Your task to perform on an android device: What's the weather today? Image 0: 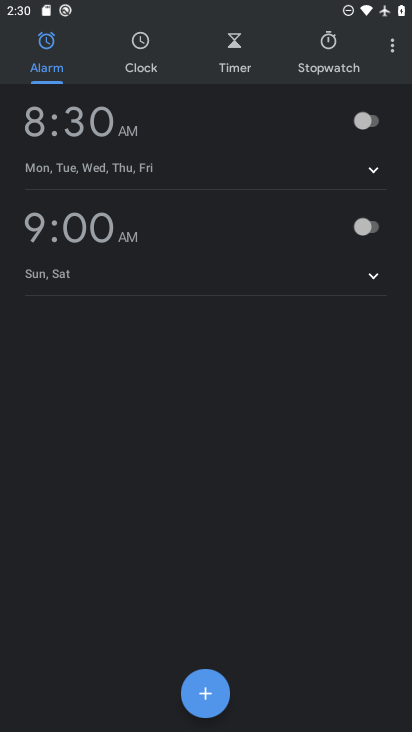
Step 0: press home button
Your task to perform on an android device: What's the weather today? Image 1: 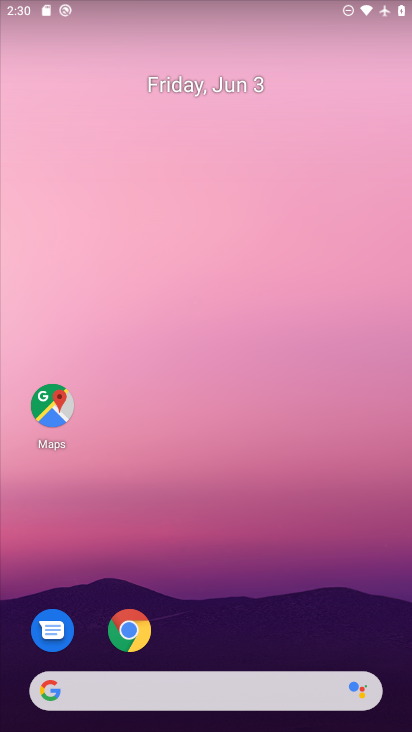
Step 1: drag from (253, 704) to (268, 112)
Your task to perform on an android device: What's the weather today? Image 2: 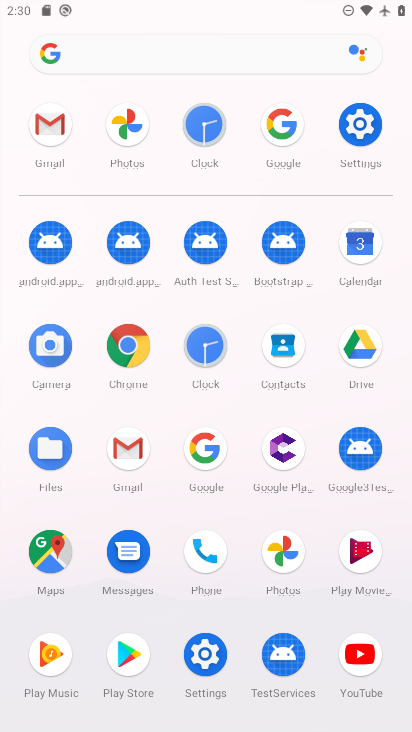
Step 2: click (217, 452)
Your task to perform on an android device: What's the weather today? Image 3: 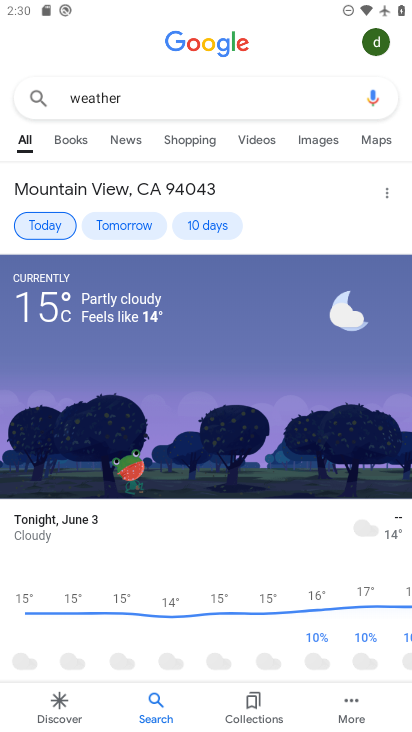
Step 3: click (40, 218)
Your task to perform on an android device: What's the weather today? Image 4: 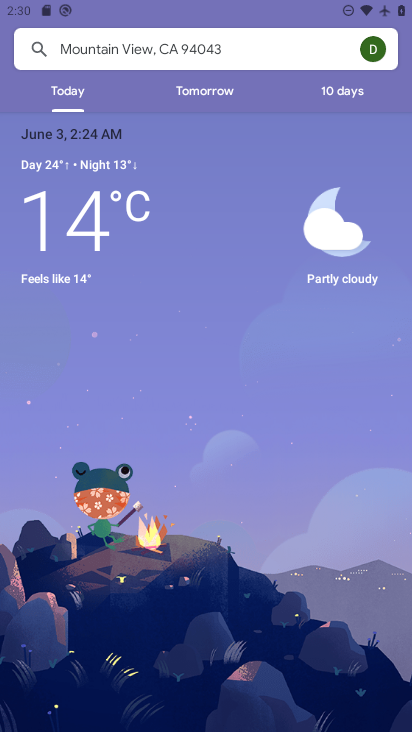
Step 4: task complete